Your task to perform on an android device: open app "AliExpress" (install if not already installed), go to login, and select forgot password Image 0: 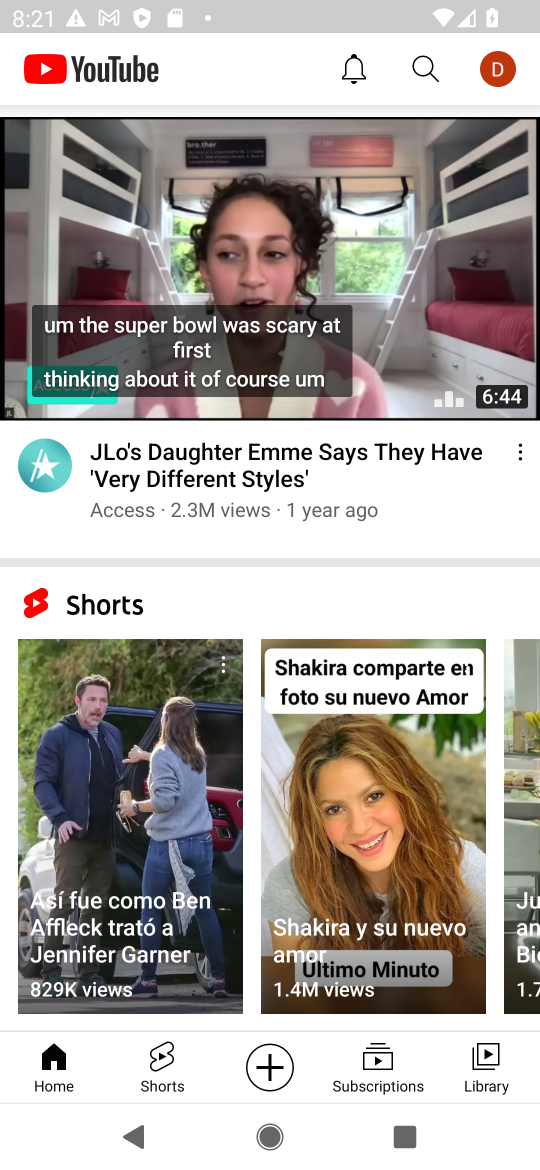
Step 0: press home button
Your task to perform on an android device: open app "AliExpress" (install if not already installed), go to login, and select forgot password Image 1: 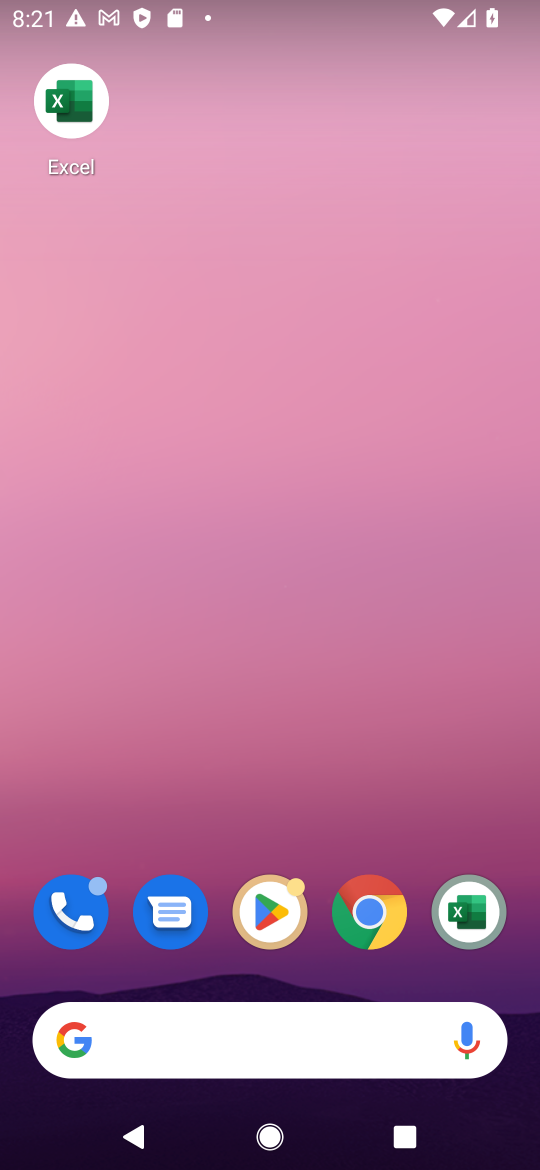
Step 1: drag from (206, 1055) to (524, 460)
Your task to perform on an android device: open app "AliExpress" (install if not already installed), go to login, and select forgot password Image 2: 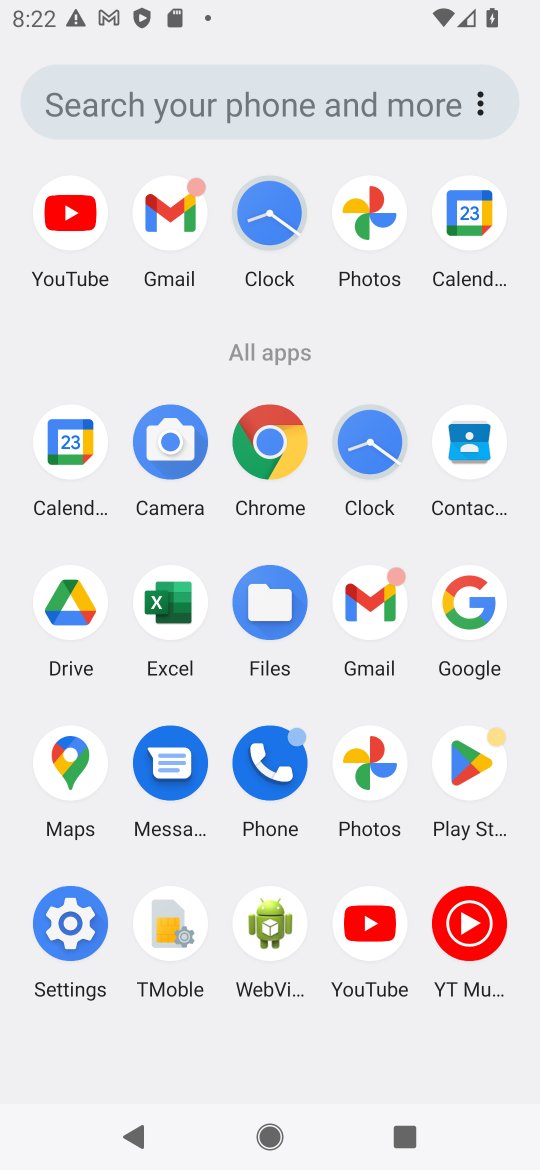
Step 2: click (456, 763)
Your task to perform on an android device: open app "AliExpress" (install if not already installed), go to login, and select forgot password Image 3: 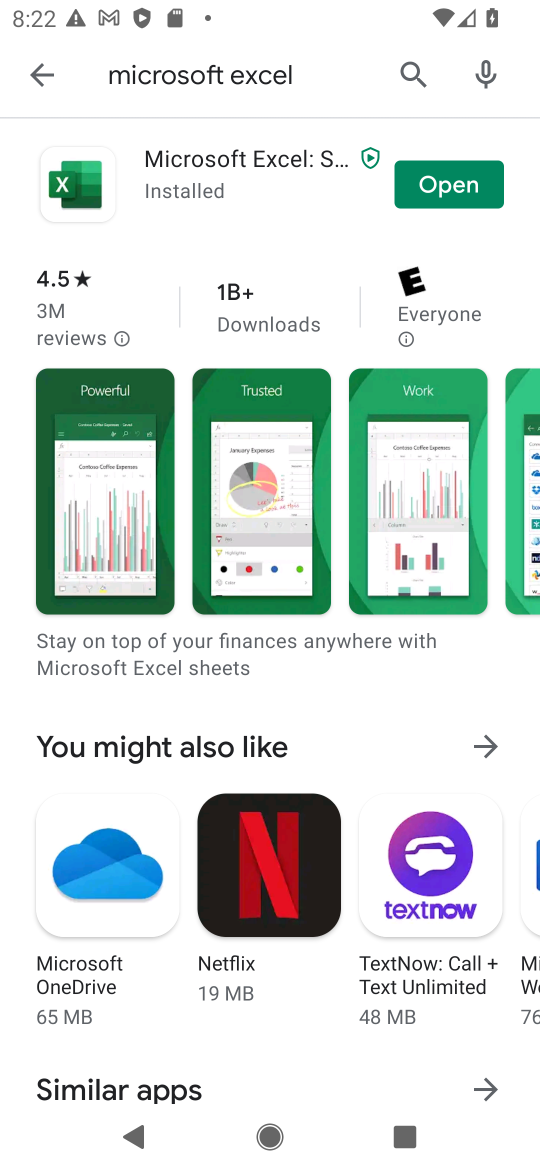
Step 3: press back button
Your task to perform on an android device: open app "AliExpress" (install if not already installed), go to login, and select forgot password Image 4: 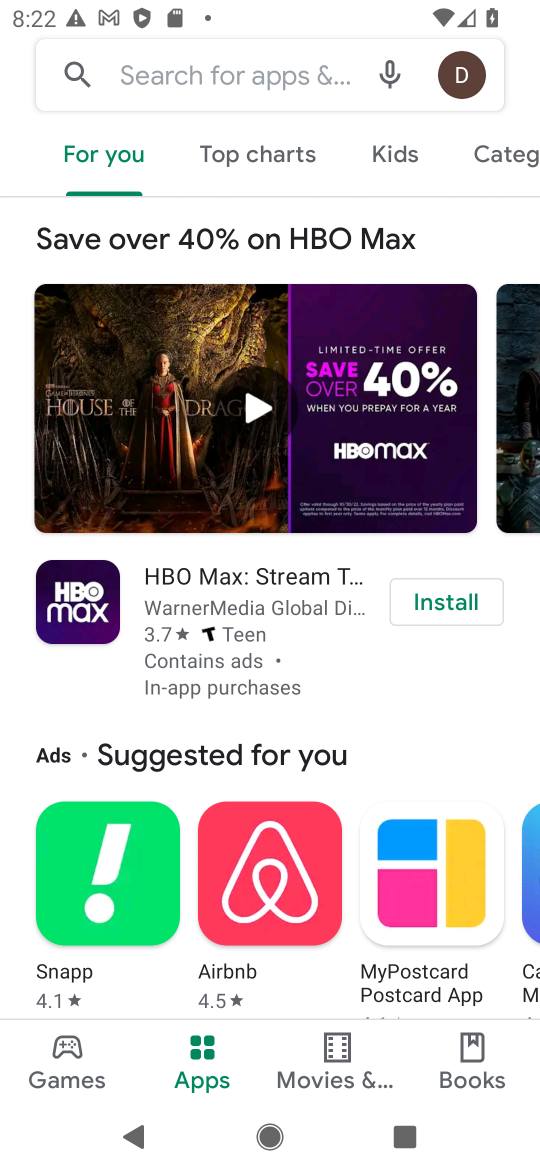
Step 4: click (230, 73)
Your task to perform on an android device: open app "AliExpress" (install if not already installed), go to login, and select forgot password Image 5: 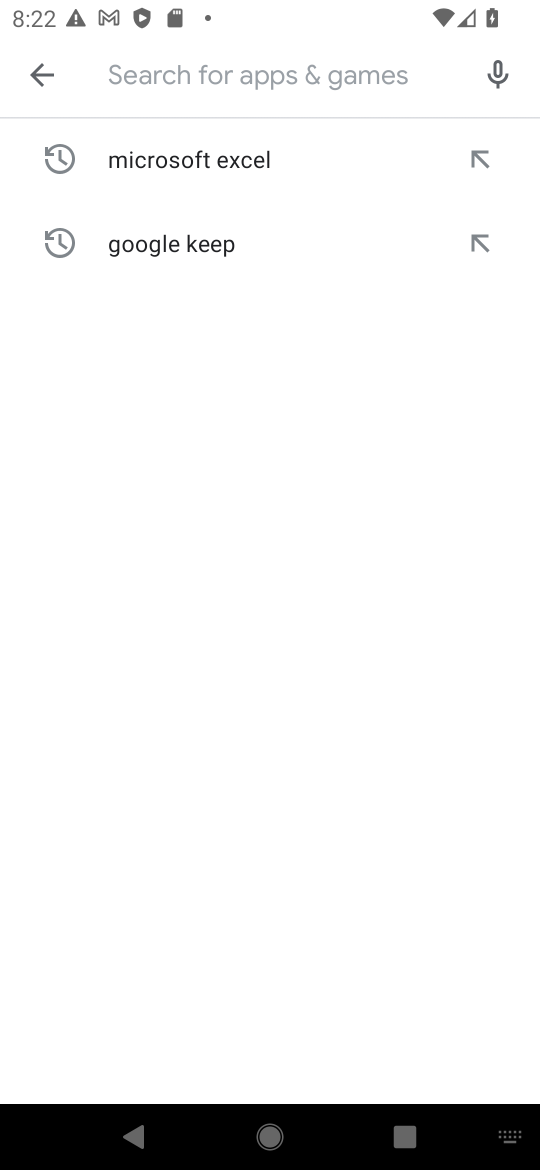
Step 5: type "AliExpress"
Your task to perform on an android device: open app "AliExpress" (install if not already installed), go to login, and select forgot password Image 6: 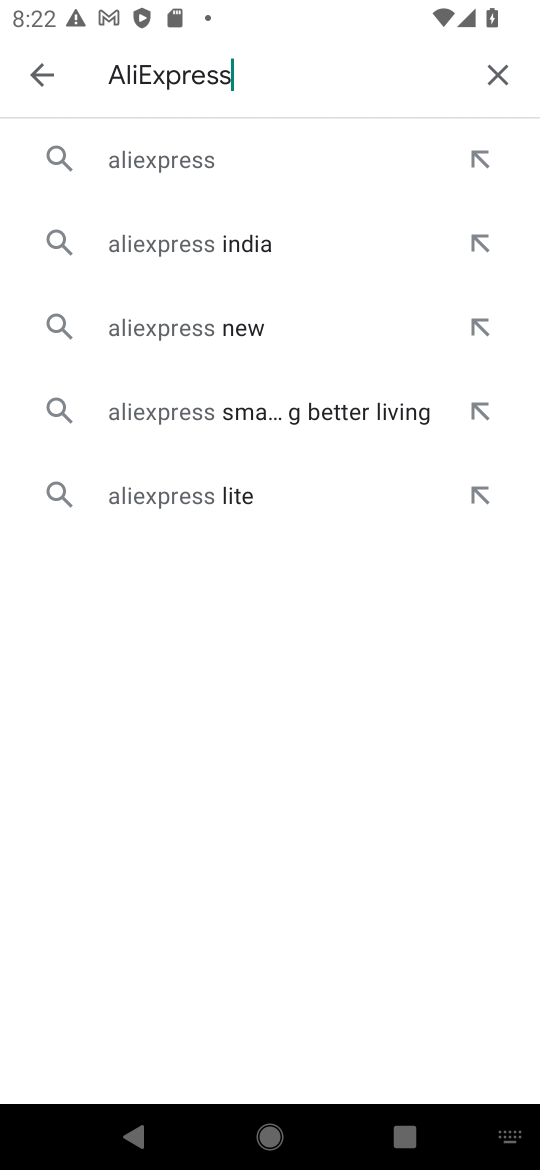
Step 6: click (201, 152)
Your task to perform on an android device: open app "AliExpress" (install if not already installed), go to login, and select forgot password Image 7: 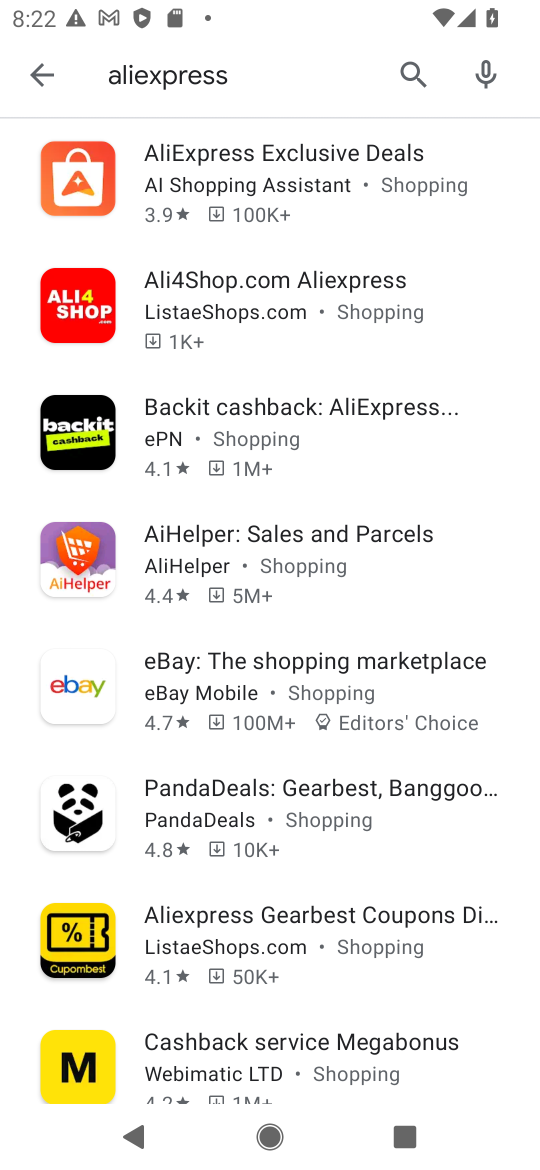
Step 7: task complete